Your task to perform on an android device: What's on my calendar tomorrow? Image 0: 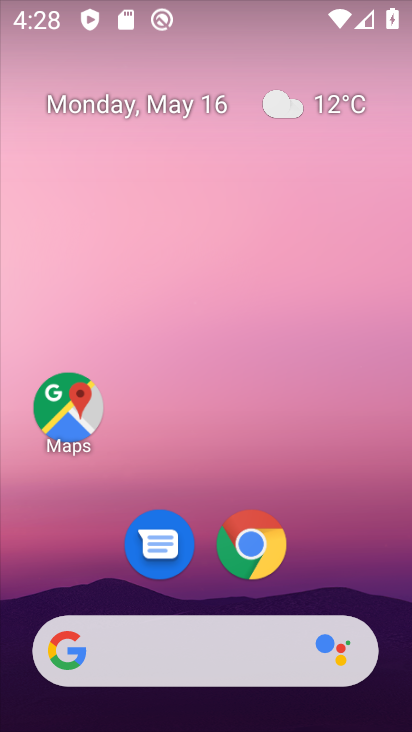
Step 0: drag from (341, 552) to (237, 134)
Your task to perform on an android device: What's on my calendar tomorrow? Image 1: 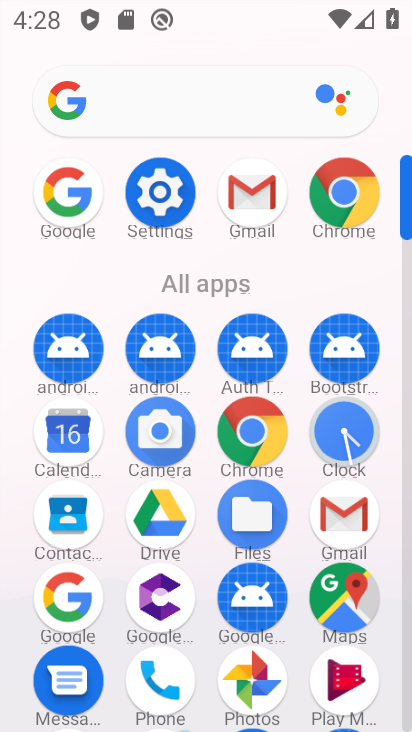
Step 1: click (68, 428)
Your task to perform on an android device: What's on my calendar tomorrow? Image 2: 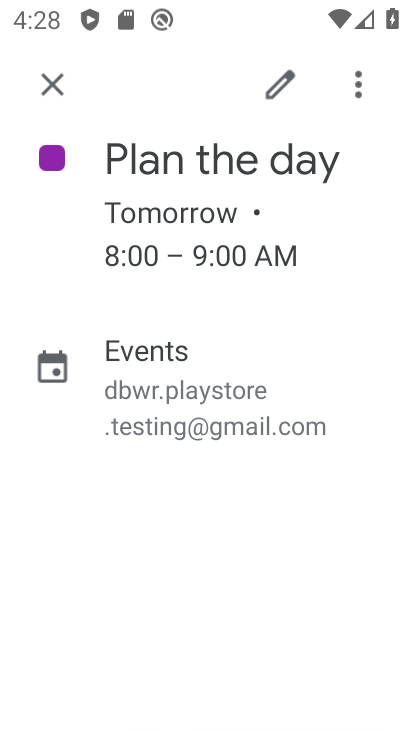
Step 2: task complete